Your task to perform on an android device: Go to ESPN.com Image 0: 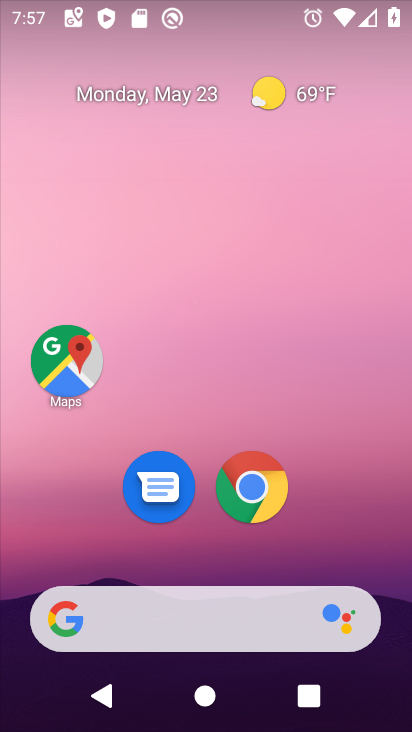
Step 0: drag from (348, 570) to (269, 10)
Your task to perform on an android device: Go to ESPN.com Image 1: 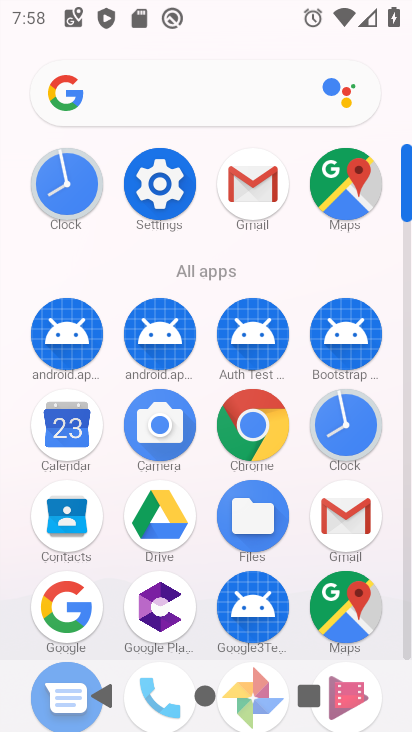
Step 1: drag from (11, 534) to (11, 211)
Your task to perform on an android device: Go to ESPN.com Image 2: 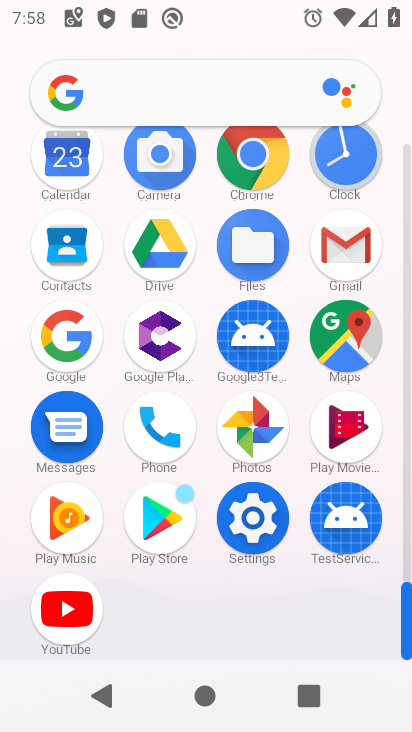
Step 2: click (251, 150)
Your task to perform on an android device: Go to ESPN.com Image 3: 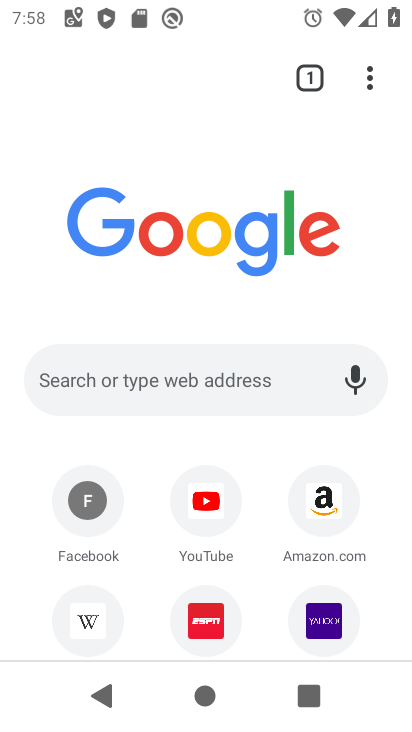
Step 3: click (193, 363)
Your task to perform on an android device: Go to ESPN.com Image 4: 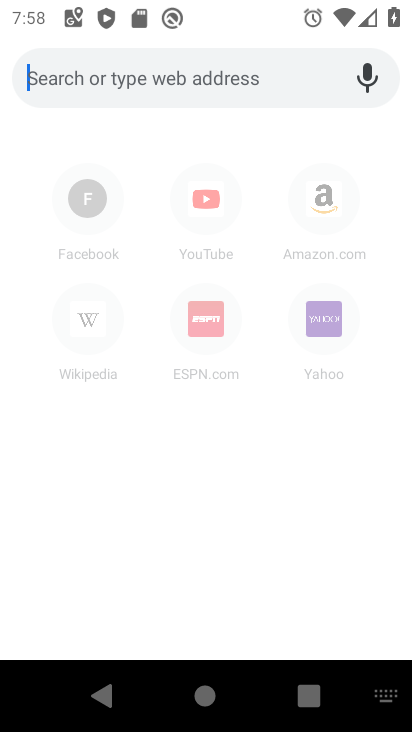
Step 4: type "ESPN.com"
Your task to perform on an android device: Go to ESPN.com Image 5: 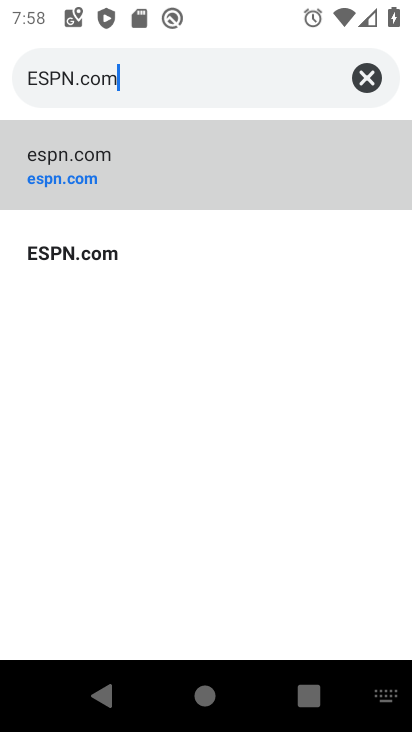
Step 5: type ""
Your task to perform on an android device: Go to ESPN.com Image 6: 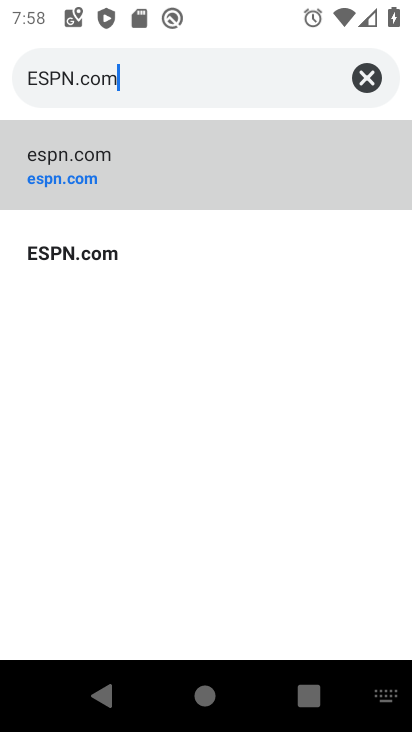
Step 6: click (151, 162)
Your task to perform on an android device: Go to ESPN.com Image 7: 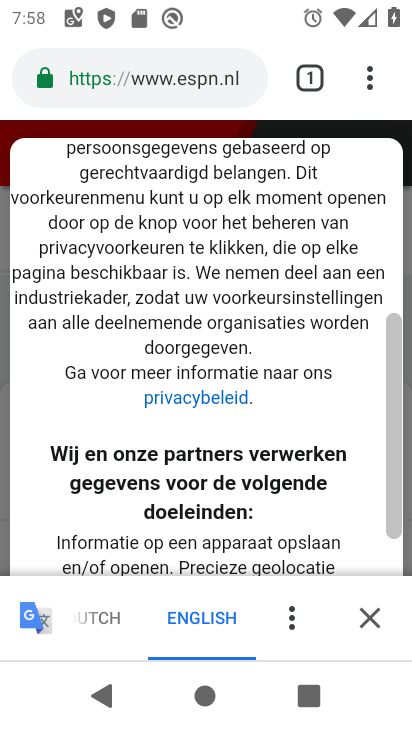
Step 7: drag from (252, 492) to (292, 147)
Your task to perform on an android device: Go to ESPN.com Image 8: 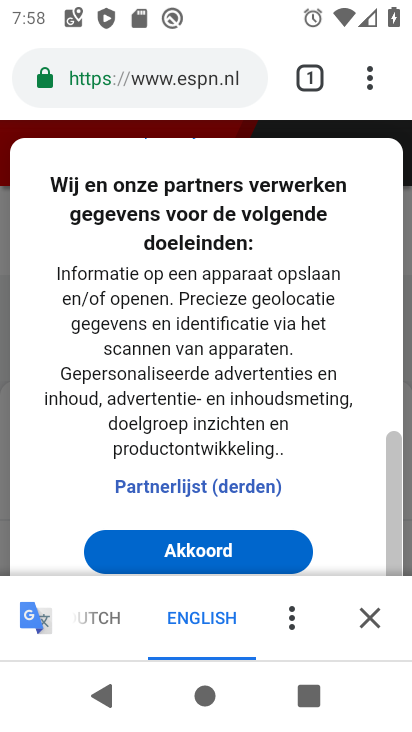
Step 8: click (202, 542)
Your task to perform on an android device: Go to ESPN.com Image 9: 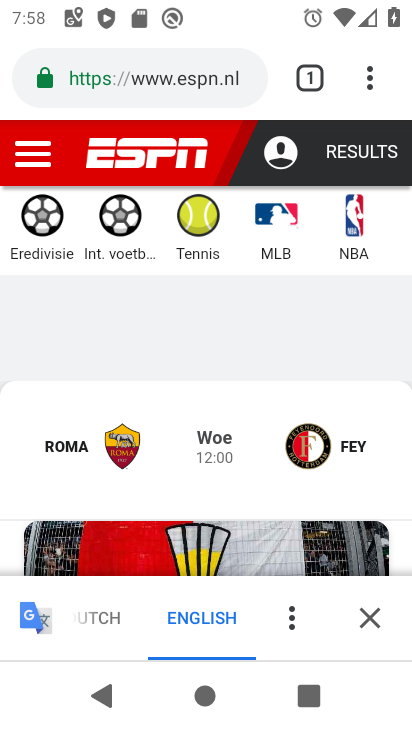
Step 9: task complete